Your task to perform on an android device: turn on improve location accuracy Image 0: 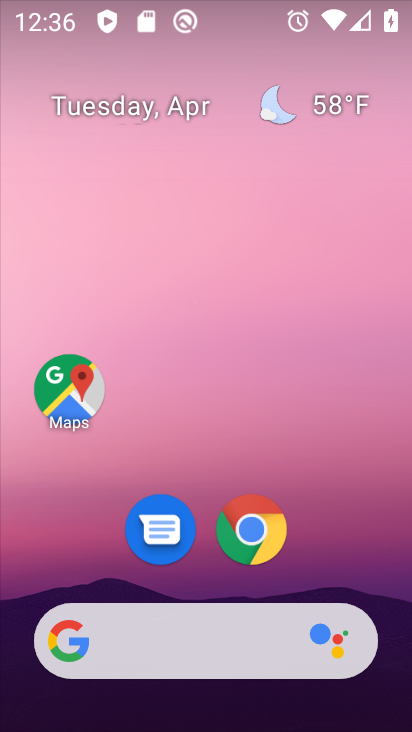
Step 0: drag from (390, 624) to (234, 90)
Your task to perform on an android device: turn on improve location accuracy Image 1: 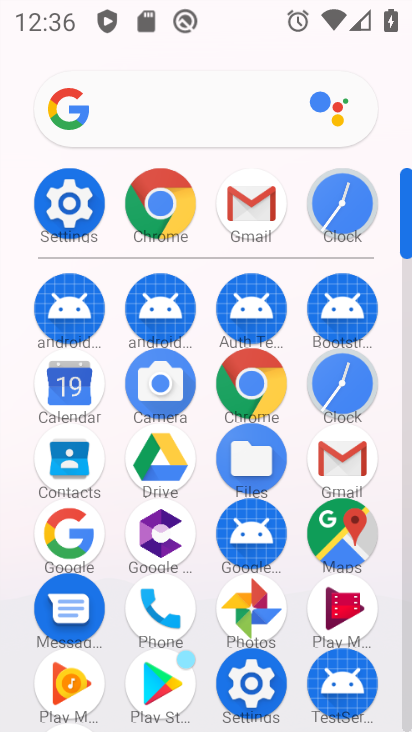
Step 1: click (50, 191)
Your task to perform on an android device: turn on improve location accuracy Image 2: 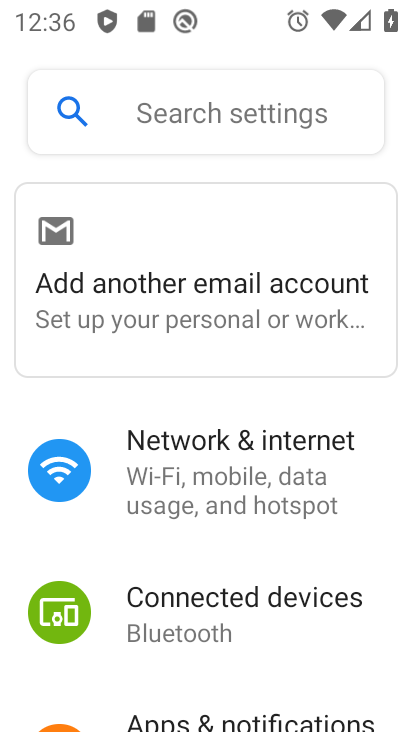
Step 2: drag from (160, 637) to (231, 183)
Your task to perform on an android device: turn on improve location accuracy Image 3: 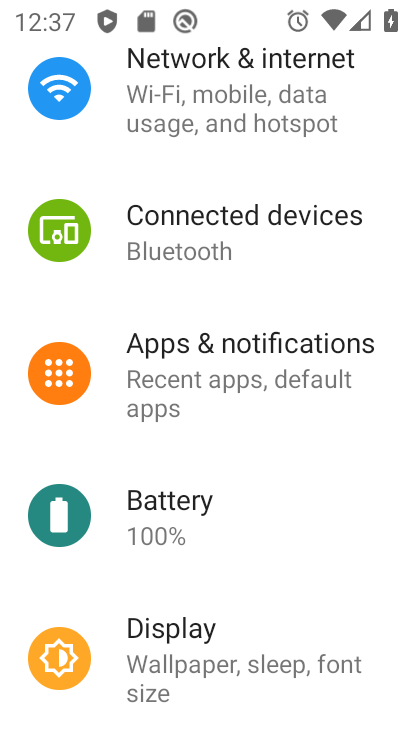
Step 3: drag from (139, 624) to (195, 228)
Your task to perform on an android device: turn on improve location accuracy Image 4: 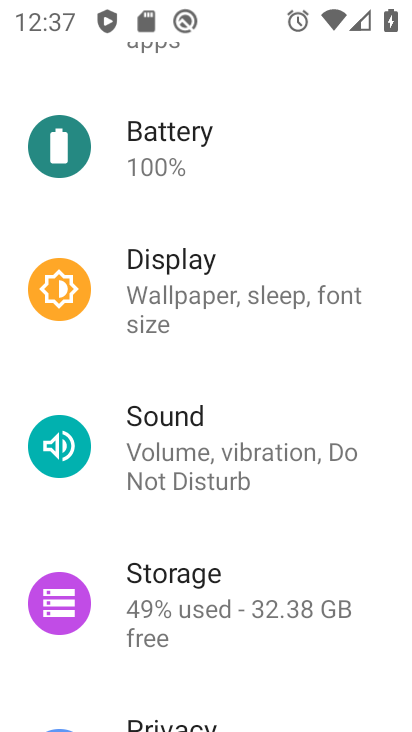
Step 4: drag from (170, 583) to (263, 179)
Your task to perform on an android device: turn on improve location accuracy Image 5: 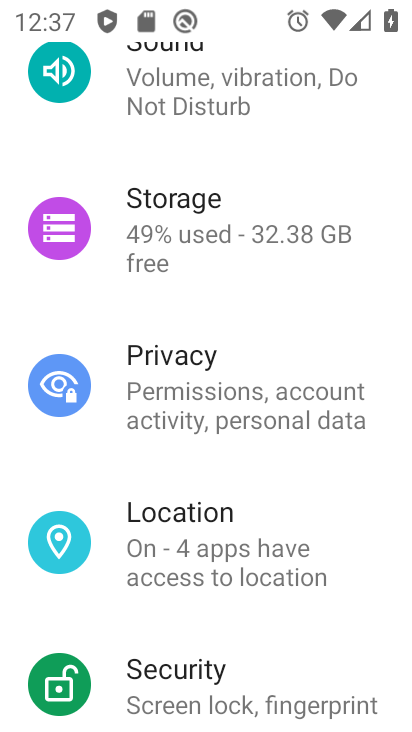
Step 5: click (205, 537)
Your task to perform on an android device: turn on improve location accuracy Image 6: 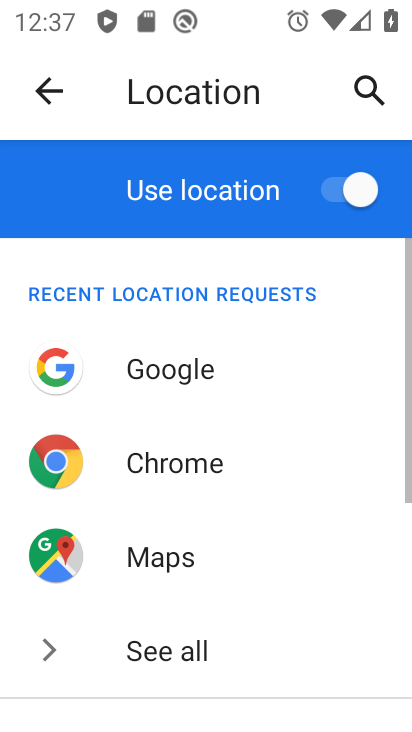
Step 6: drag from (111, 633) to (235, 147)
Your task to perform on an android device: turn on improve location accuracy Image 7: 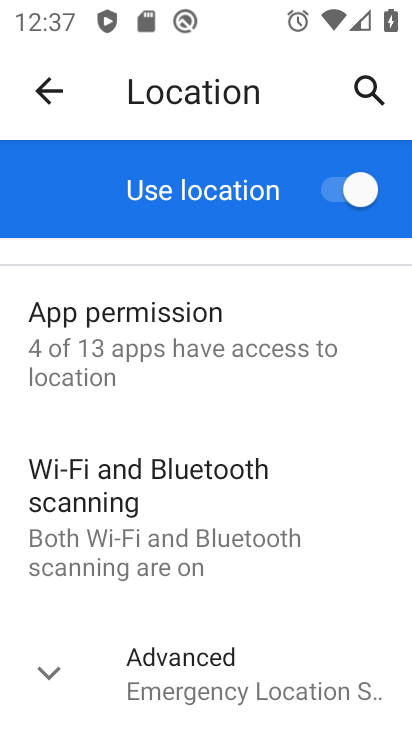
Step 7: click (52, 672)
Your task to perform on an android device: turn on improve location accuracy Image 8: 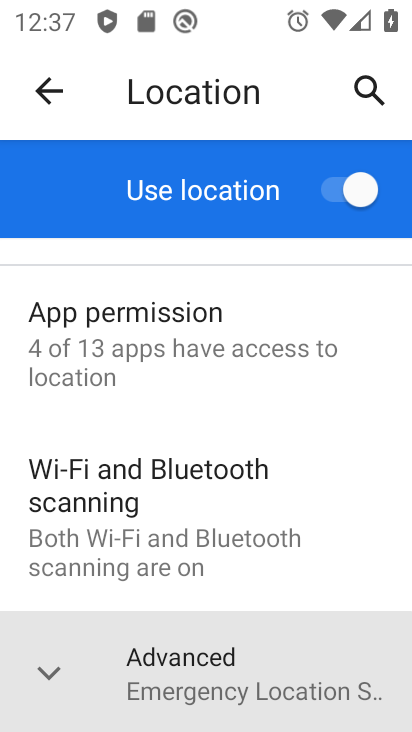
Step 8: drag from (141, 673) to (227, 255)
Your task to perform on an android device: turn on improve location accuracy Image 9: 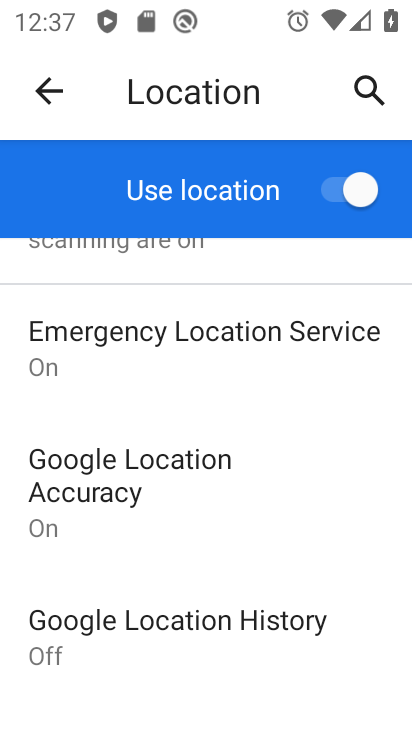
Step 9: drag from (224, 577) to (270, 289)
Your task to perform on an android device: turn on improve location accuracy Image 10: 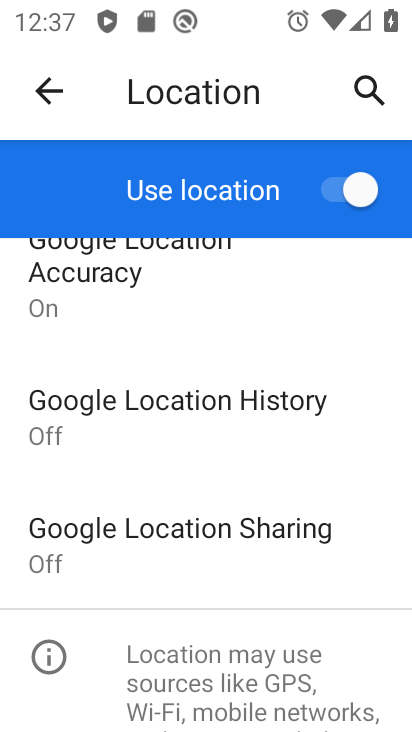
Step 10: click (175, 294)
Your task to perform on an android device: turn on improve location accuracy Image 11: 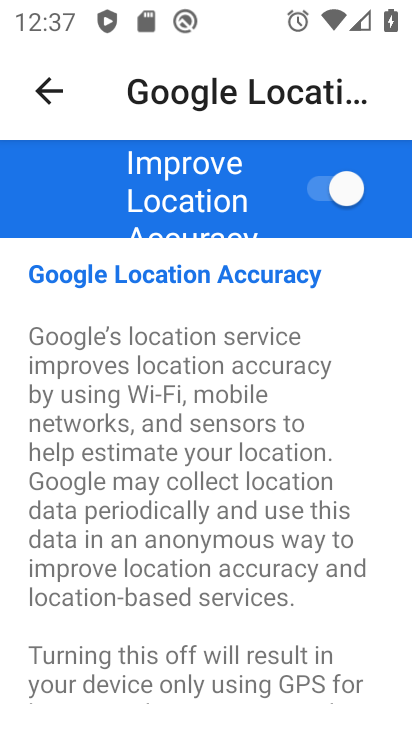
Step 11: task complete